Your task to perform on an android device: Open the stopwatch Image 0: 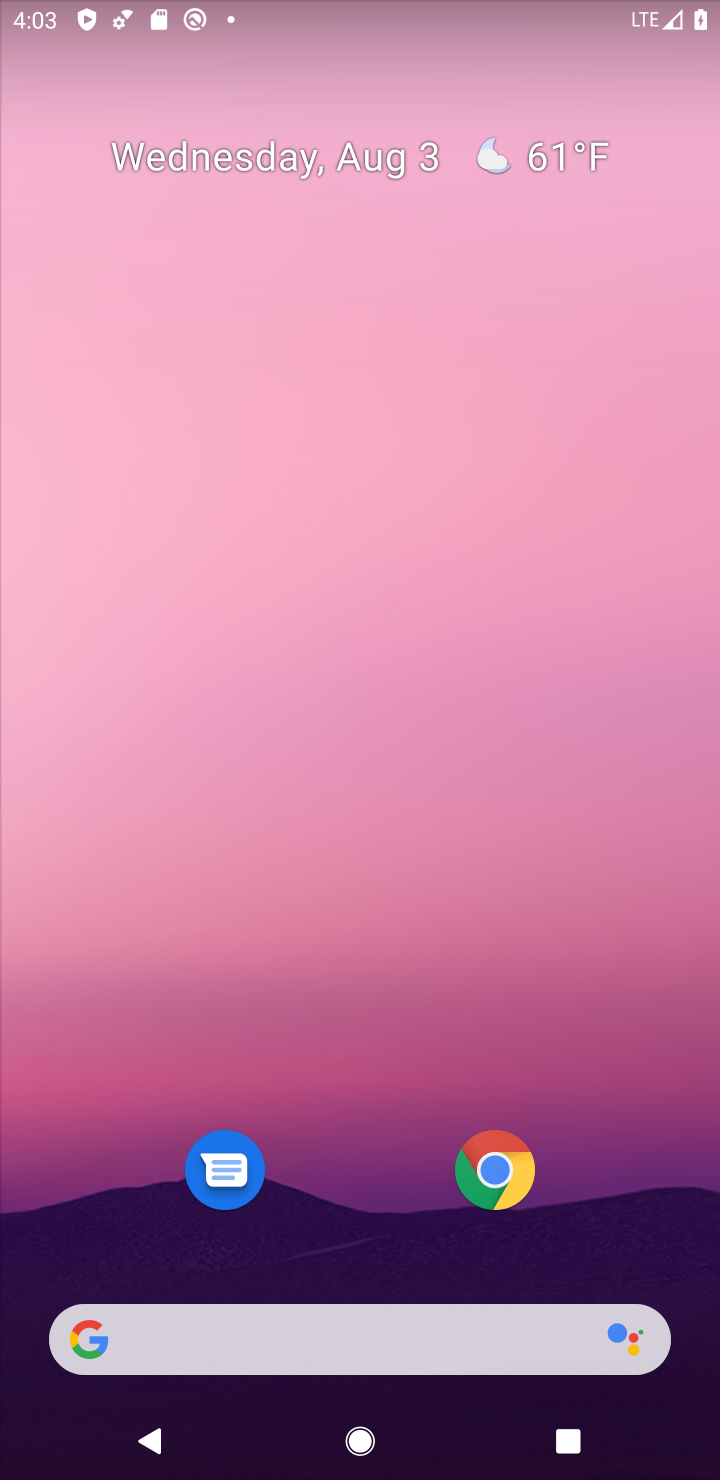
Step 0: click (348, 336)
Your task to perform on an android device: Open the stopwatch Image 1: 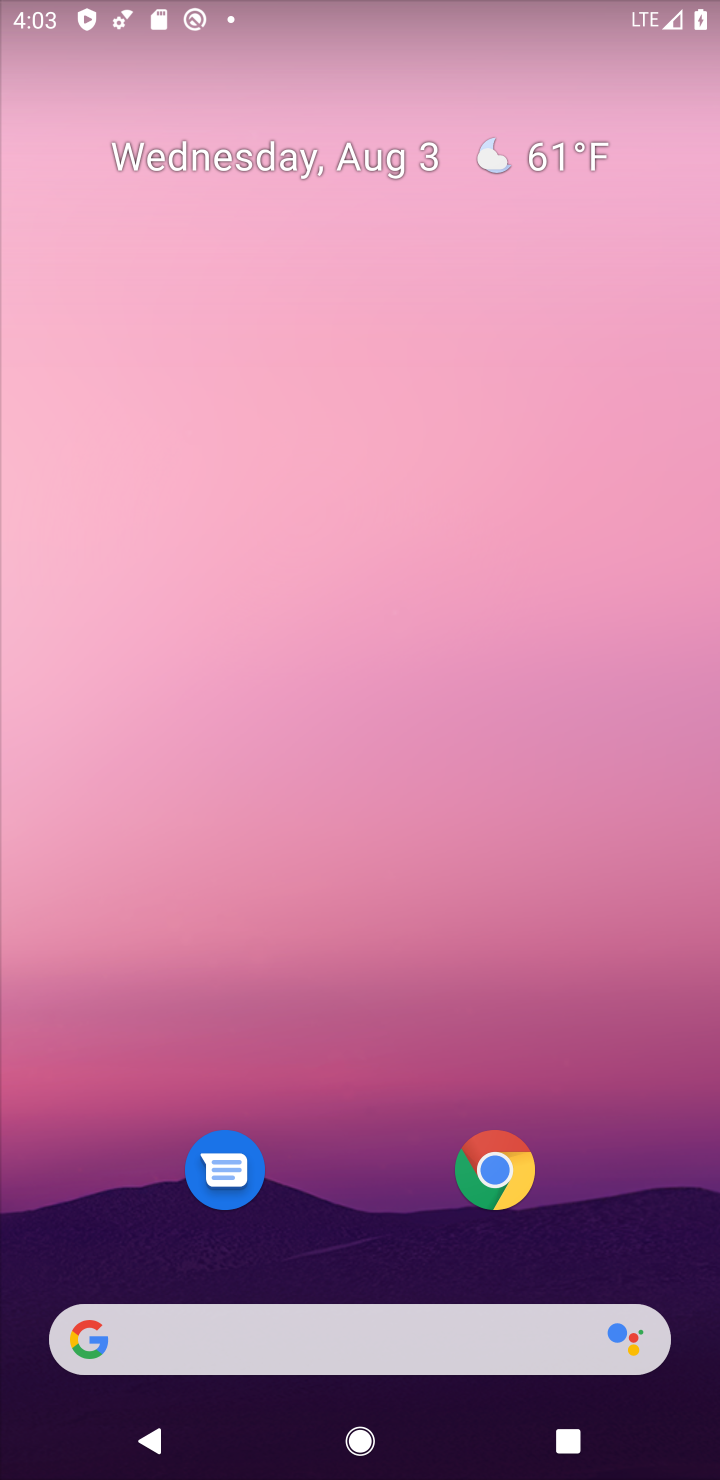
Step 1: drag from (359, 1139) to (316, 208)
Your task to perform on an android device: Open the stopwatch Image 2: 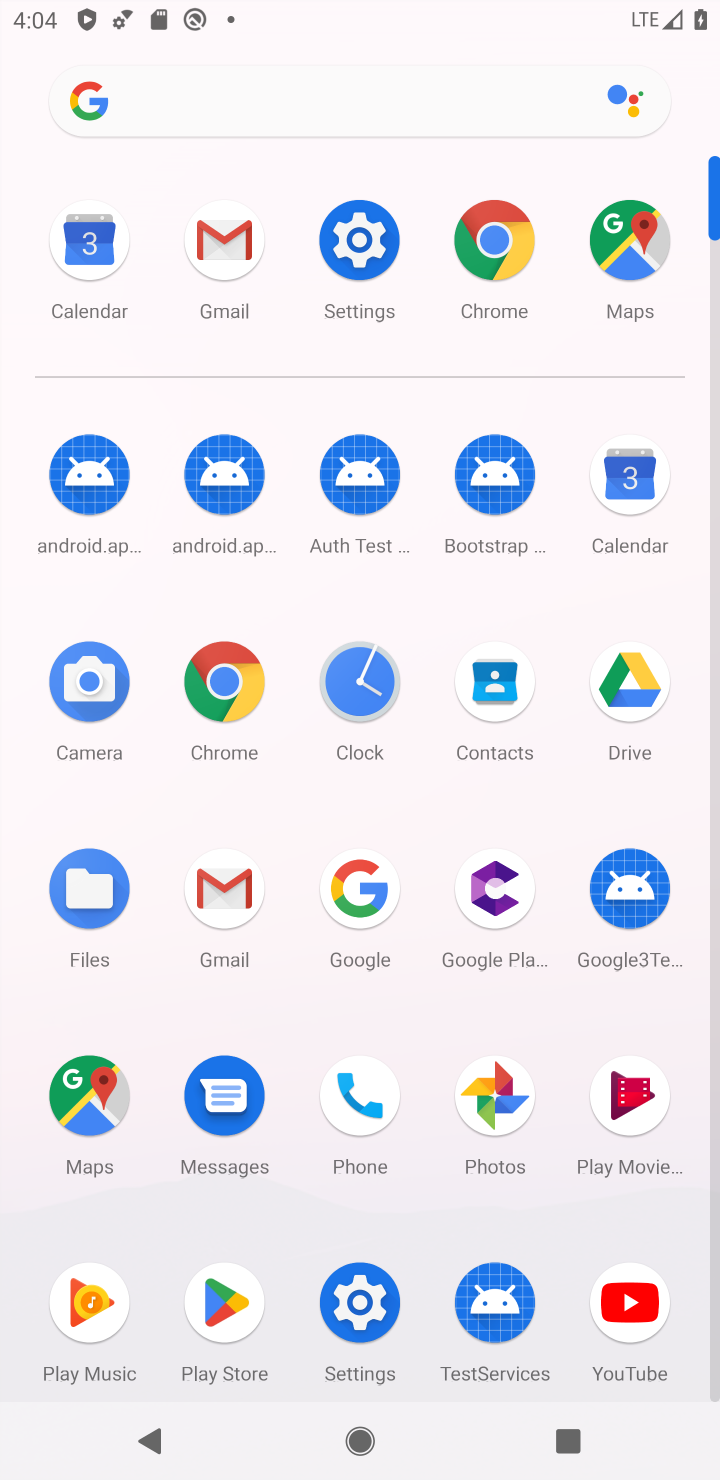
Step 2: click (367, 692)
Your task to perform on an android device: Open the stopwatch Image 3: 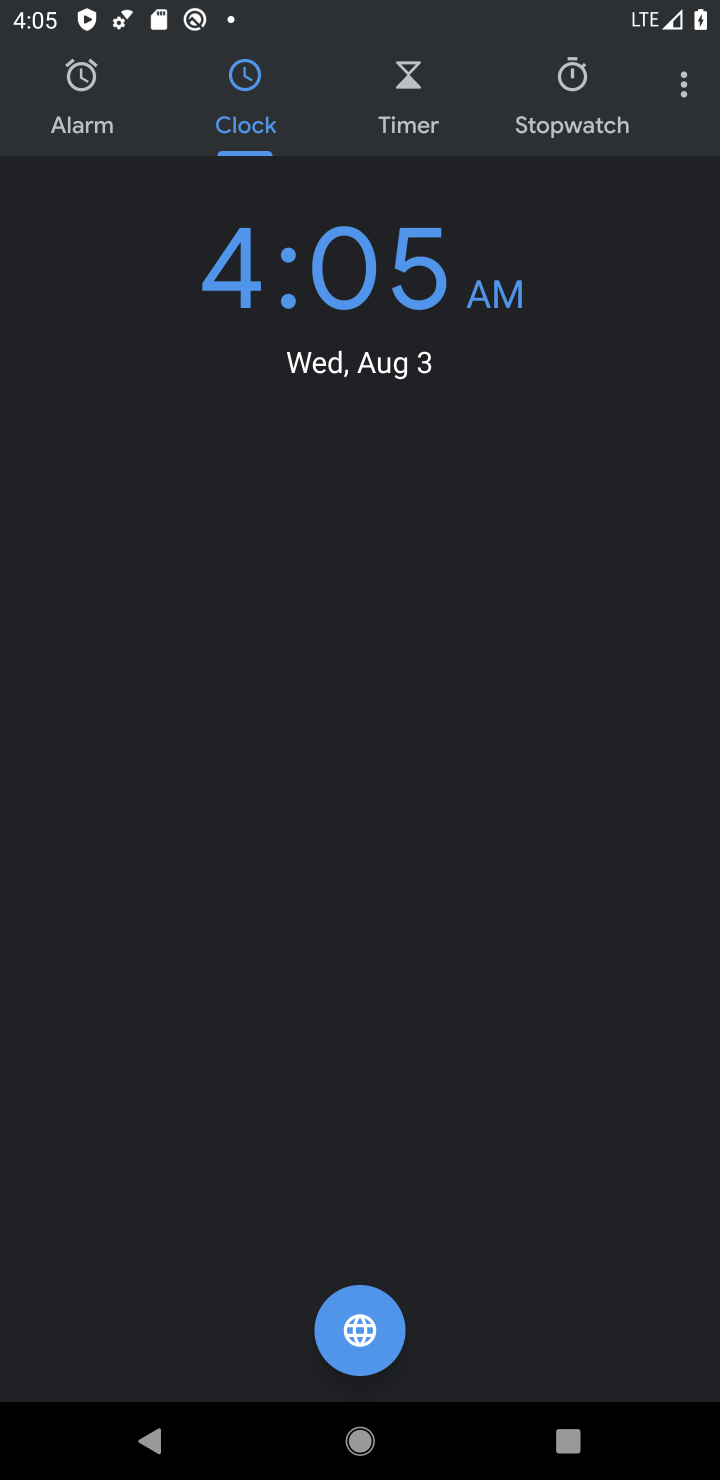
Step 3: click (576, 118)
Your task to perform on an android device: Open the stopwatch Image 4: 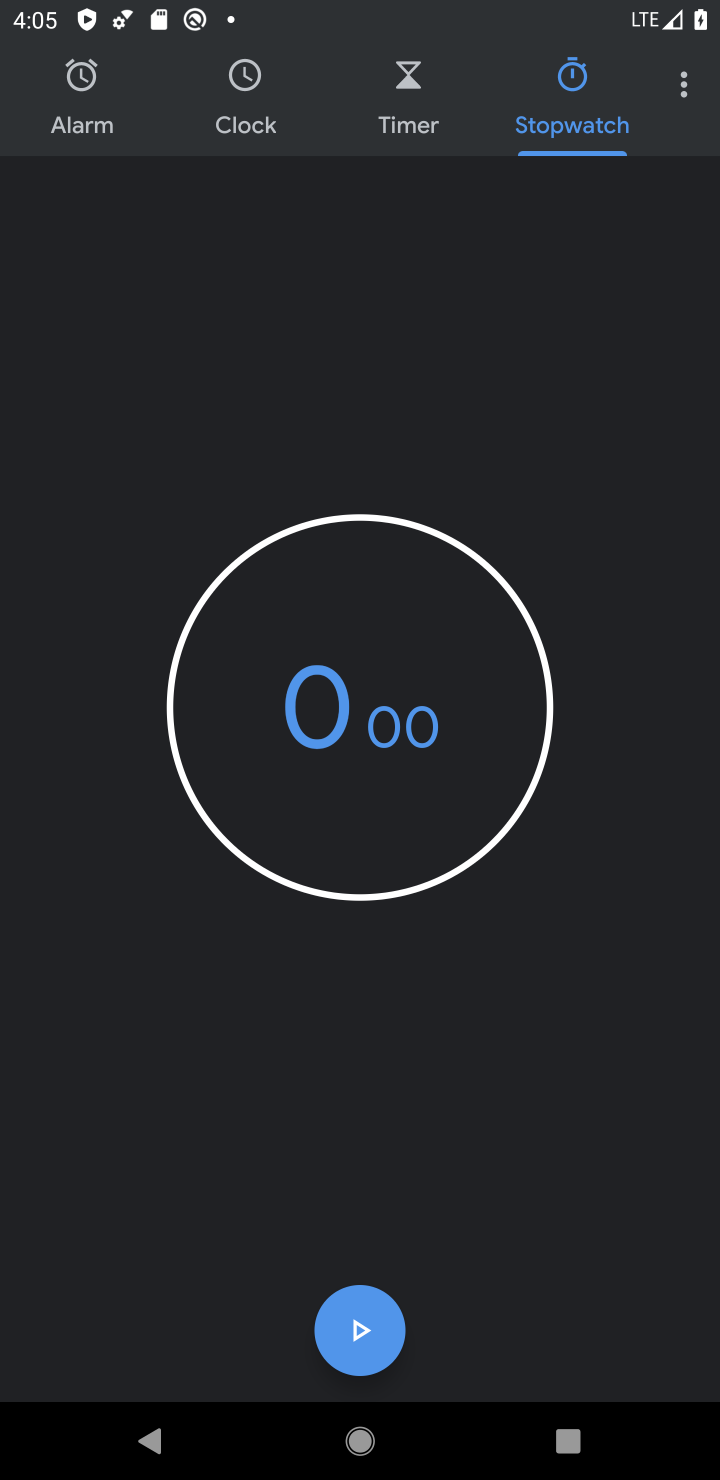
Step 4: task complete